Your task to perform on an android device: Open wifi settings Image 0: 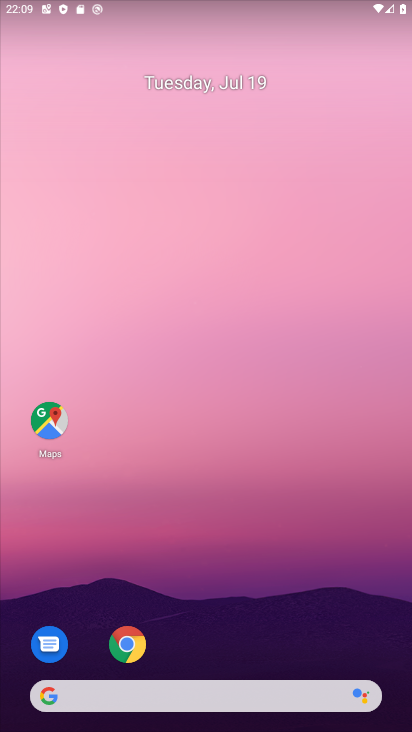
Step 0: drag from (219, 722) to (185, 191)
Your task to perform on an android device: Open wifi settings Image 1: 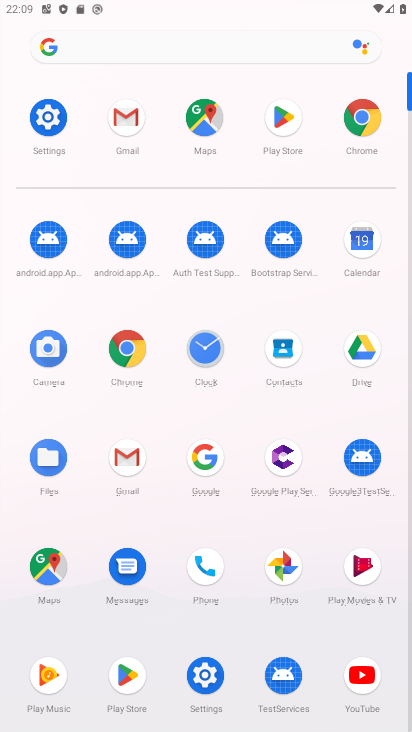
Step 1: click (46, 117)
Your task to perform on an android device: Open wifi settings Image 2: 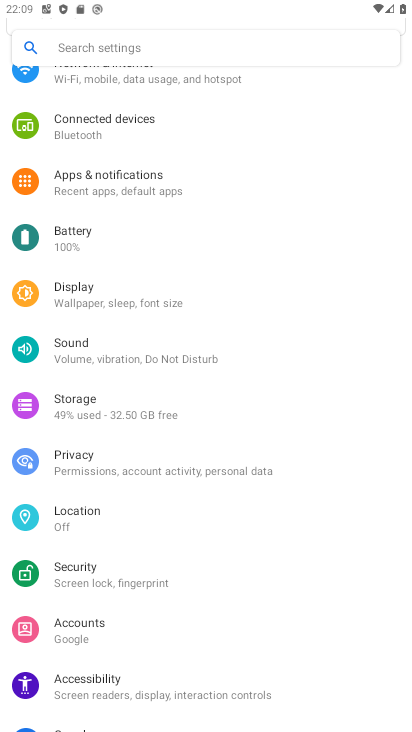
Step 2: drag from (124, 118) to (127, 473)
Your task to perform on an android device: Open wifi settings Image 3: 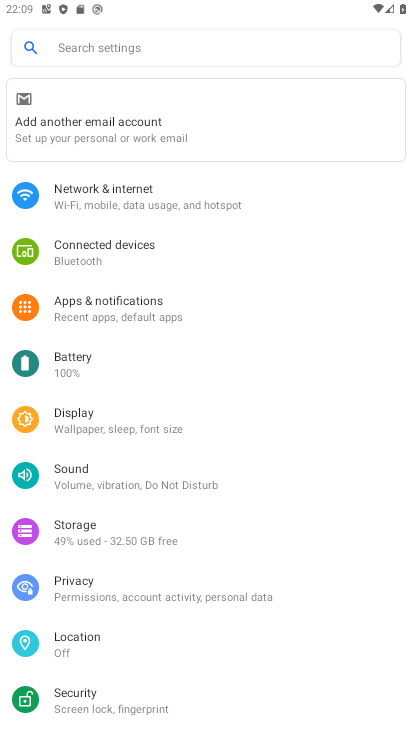
Step 3: click (128, 198)
Your task to perform on an android device: Open wifi settings Image 4: 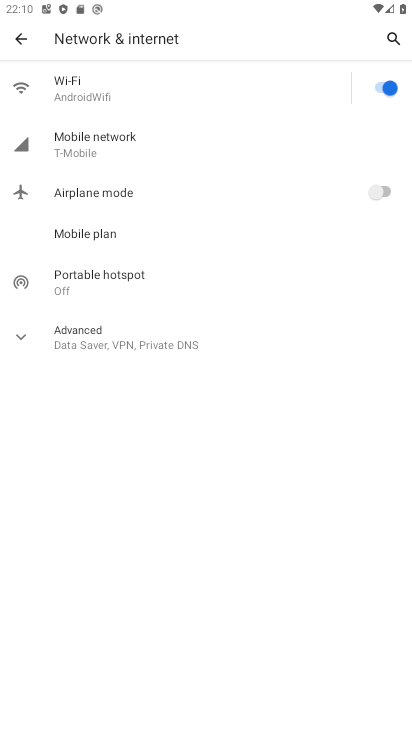
Step 4: click (78, 82)
Your task to perform on an android device: Open wifi settings Image 5: 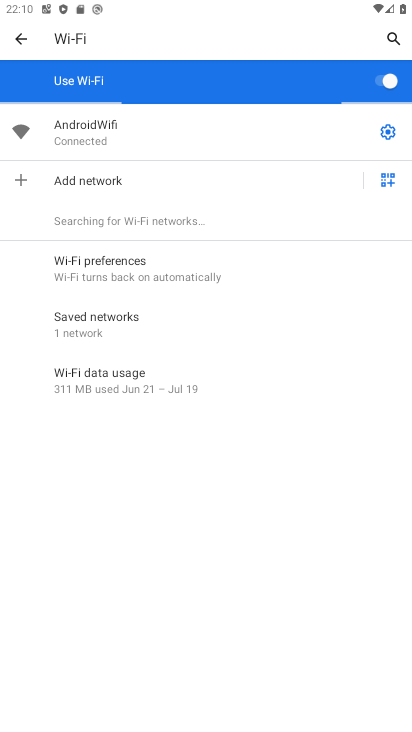
Step 5: task complete